Your task to perform on an android device: Add razer blade to the cart on ebay, then select checkout. Image 0: 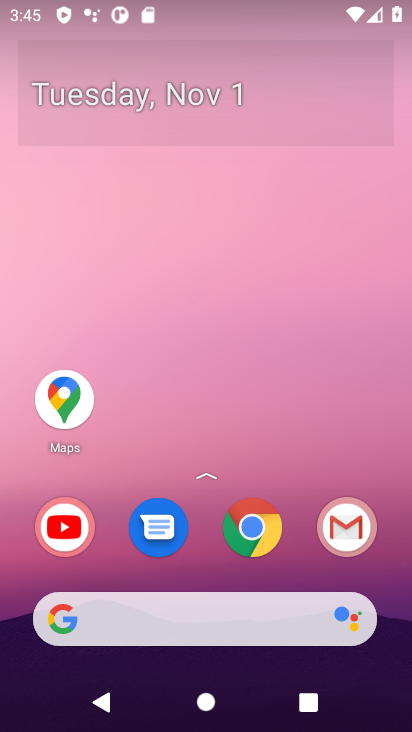
Step 0: click (183, 634)
Your task to perform on an android device: Add razer blade to the cart on ebay, then select checkout. Image 1: 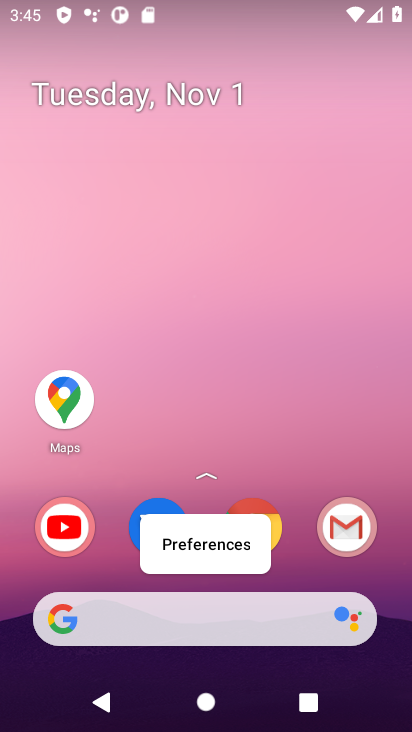
Step 1: click (183, 634)
Your task to perform on an android device: Add razer blade to the cart on ebay, then select checkout. Image 2: 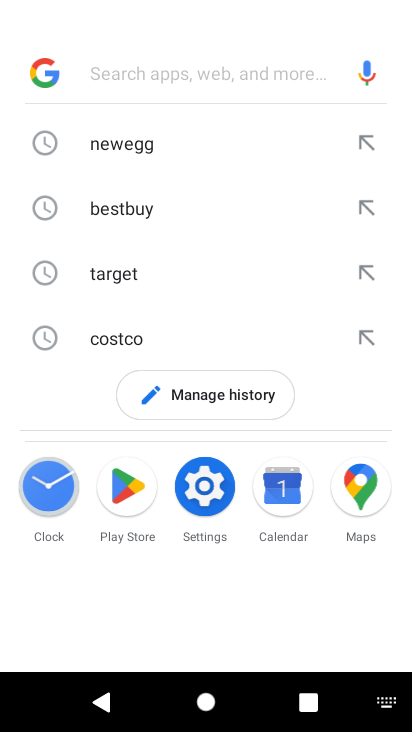
Step 2: type "ebay"
Your task to perform on an android device: Add razer blade to the cart on ebay, then select checkout. Image 3: 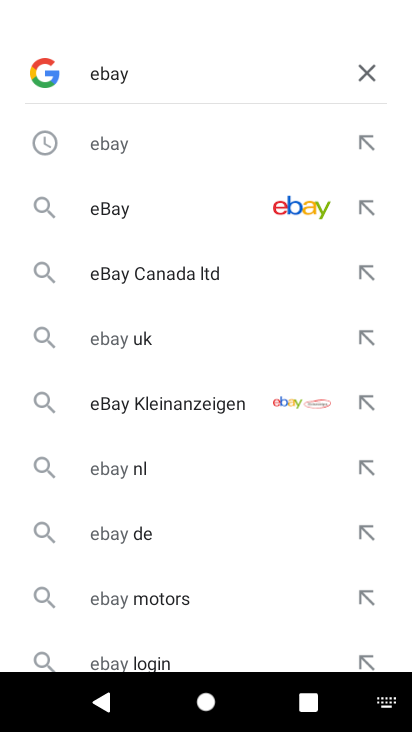
Step 3: type ""
Your task to perform on an android device: Add razer blade to the cart on ebay, then select checkout. Image 4: 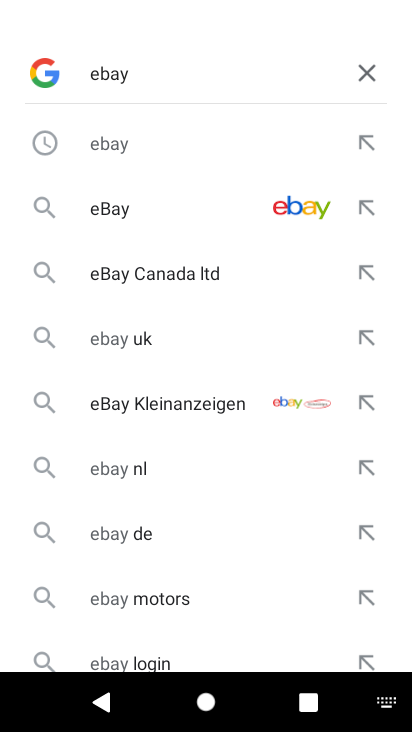
Step 4: press enter
Your task to perform on an android device: Add razer blade to the cart on ebay, then select checkout. Image 5: 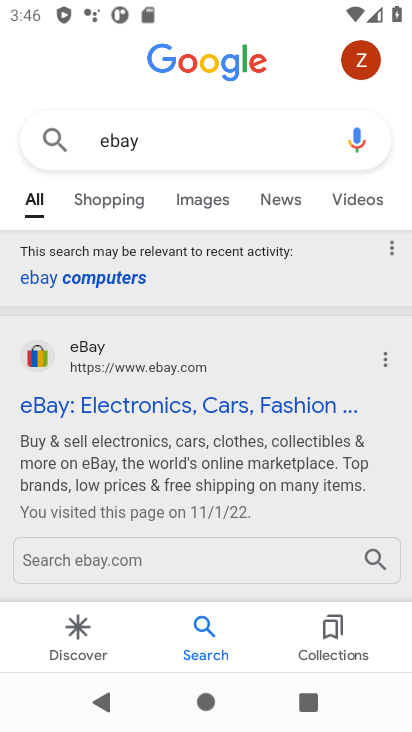
Step 5: click (142, 357)
Your task to perform on an android device: Add razer blade to the cart on ebay, then select checkout. Image 6: 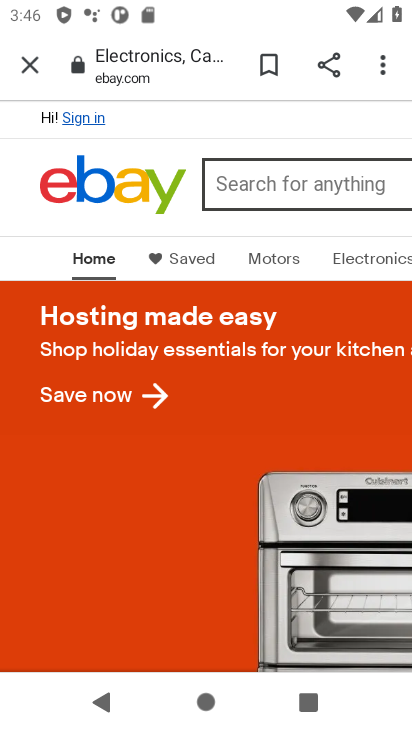
Step 6: click (279, 190)
Your task to perform on an android device: Add razer blade to the cart on ebay, then select checkout. Image 7: 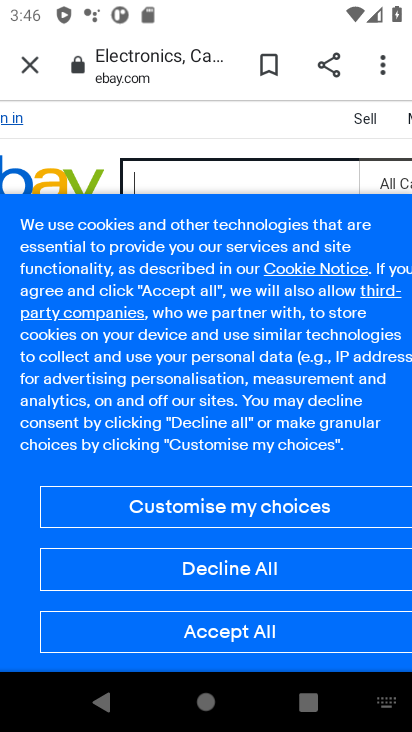
Step 7: click (221, 627)
Your task to perform on an android device: Add razer blade to the cart on ebay, then select checkout. Image 8: 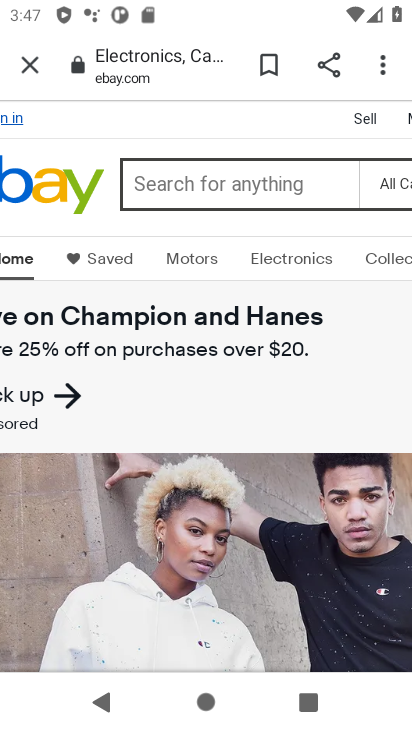
Step 8: click (191, 188)
Your task to perform on an android device: Add razer blade to the cart on ebay, then select checkout. Image 9: 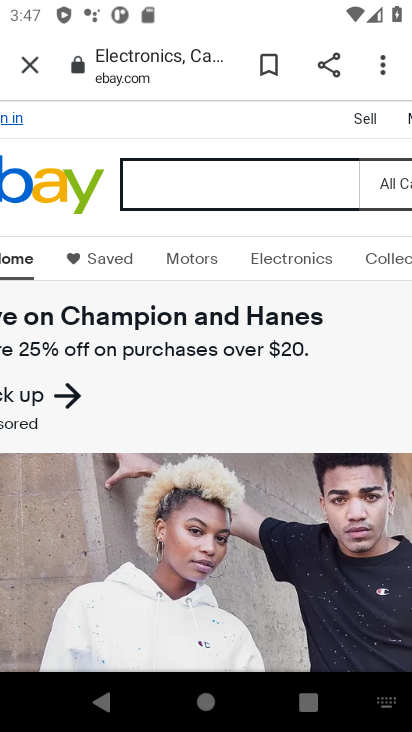
Step 9: click (191, 185)
Your task to perform on an android device: Add razer blade to the cart on ebay, then select checkout. Image 10: 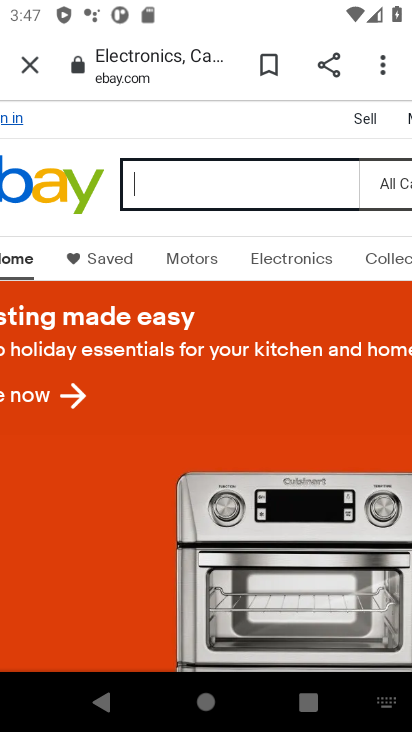
Step 10: click (191, 185)
Your task to perform on an android device: Add razer blade to the cart on ebay, then select checkout. Image 11: 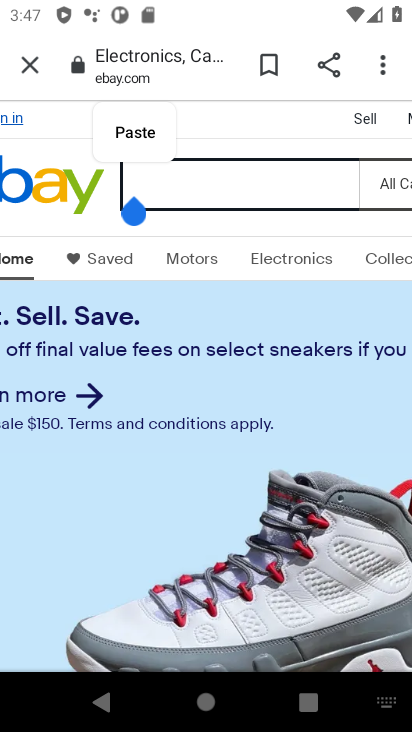
Step 11: type "razer blade"
Your task to perform on an android device: Add razer blade to the cart on ebay, then select checkout. Image 12: 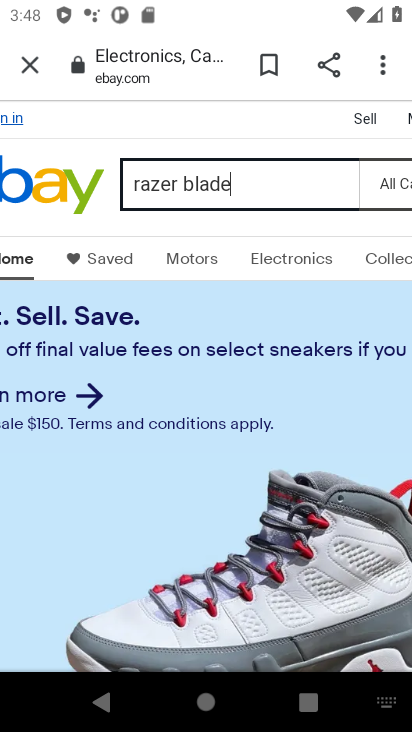
Step 12: type ""
Your task to perform on an android device: Add razer blade to the cart on ebay, then select checkout. Image 13: 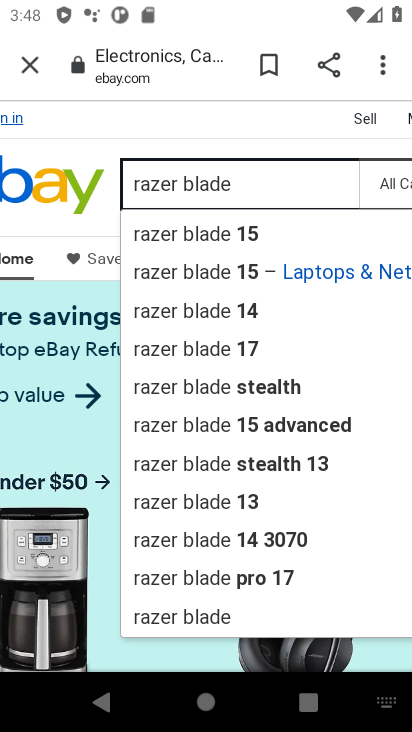
Step 13: press enter
Your task to perform on an android device: Add razer blade to the cart on ebay, then select checkout. Image 14: 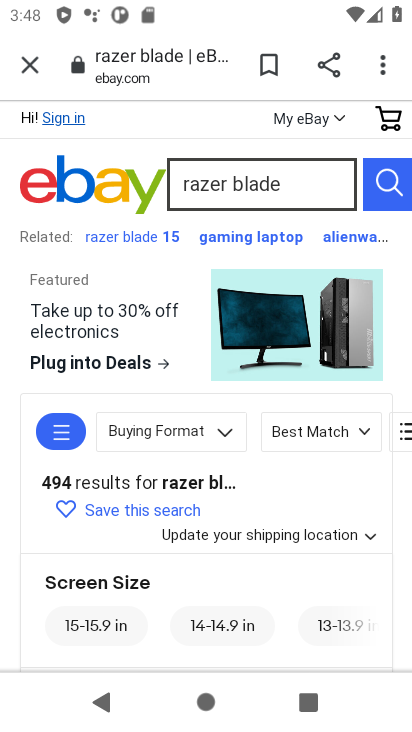
Step 14: click (391, 195)
Your task to perform on an android device: Add razer blade to the cart on ebay, then select checkout. Image 15: 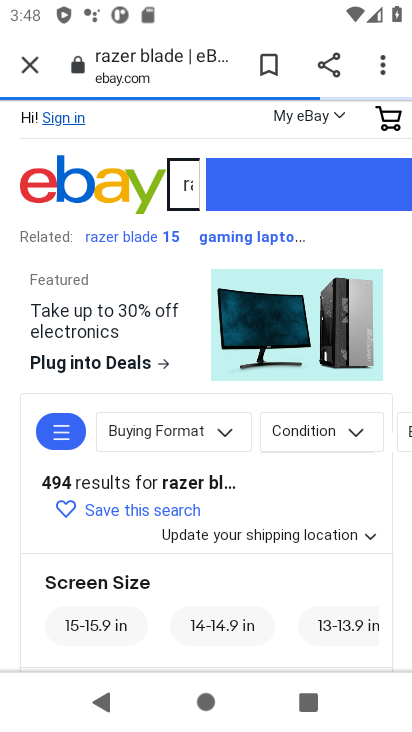
Step 15: drag from (202, 498) to (179, 182)
Your task to perform on an android device: Add razer blade to the cart on ebay, then select checkout. Image 16: 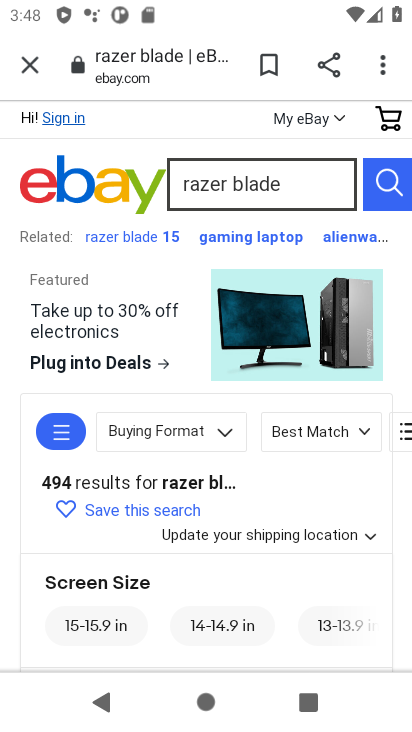
Step 16: drag from (187, 509) to (183, 199)
Your task to perform on an android device: Add razer blade to the cart on ebay, then select checkout. Image 17: 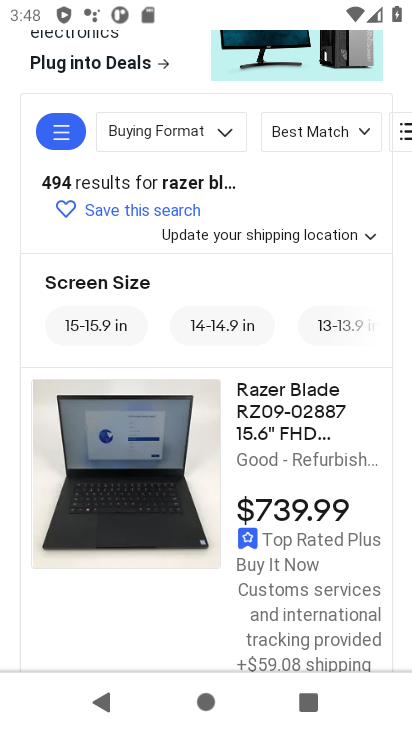
Step 17: click (295, 422)
Your task to perform on an android device: Add razer blade to the cart on ebay, then select checkout. Image 18: 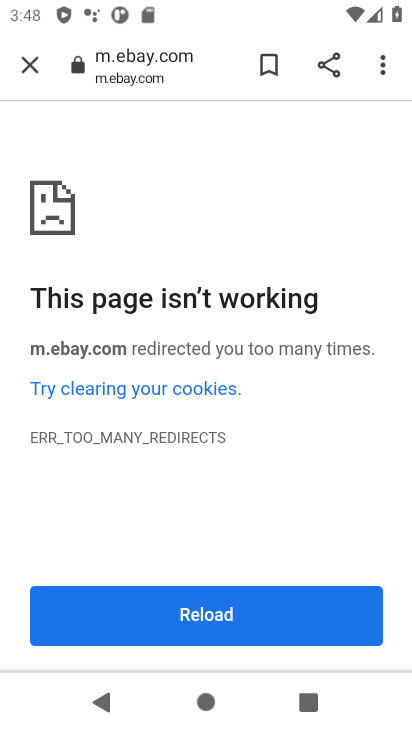
Step 18: task complete